Your task to perform on an android device: Open the map Image 0: 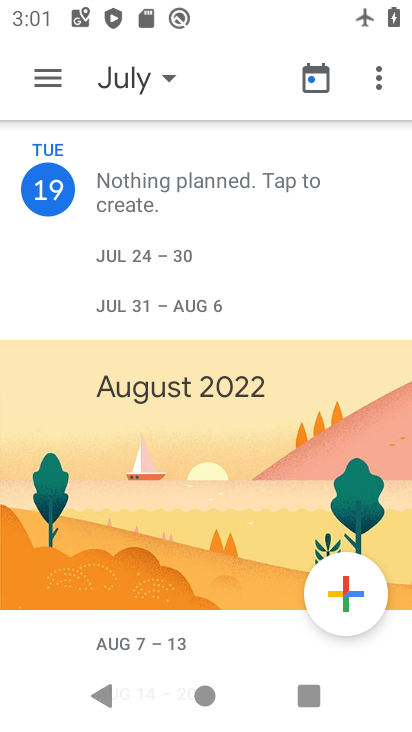
Step 0: press back button
Your task to perform on an android device: Open the map Image 1: 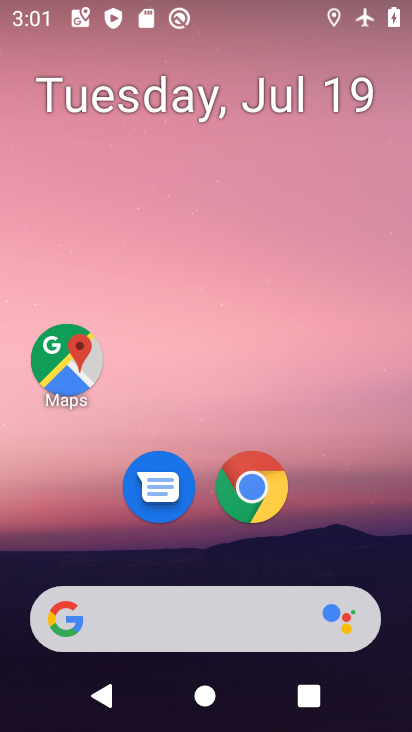
Step 1: click (65, 352)
Your task to perform on an android device: Open the map Image 2: 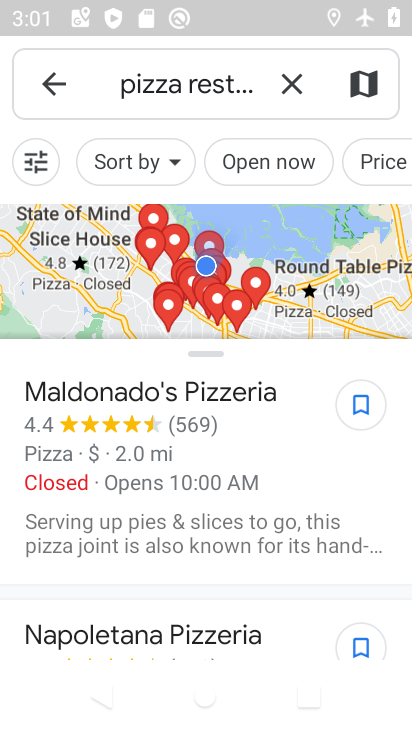
Step 2: task complete